Your task to perform on an android device: Go to Yahoo.com Image 0: 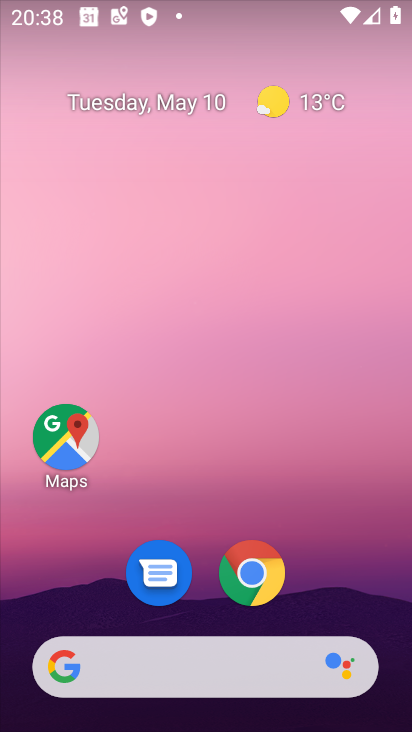
Step 0: click (250, 584)
Your task to perform on an android device: Go to Yahoo.com Image 1: 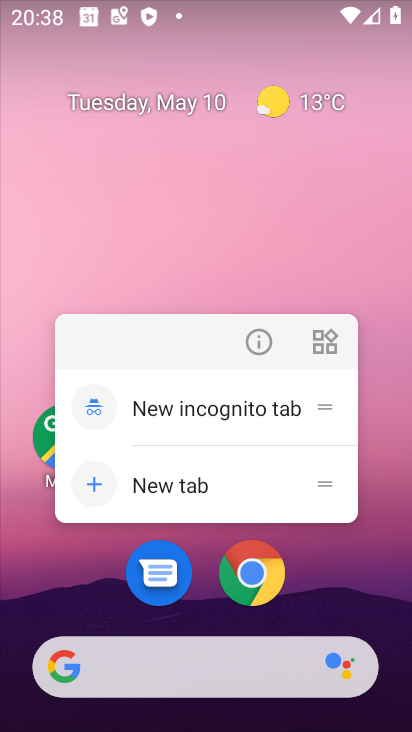
Step 1: click (258, 575)
Your task to perform on an android device: Go to Yahoo.com Image 2: 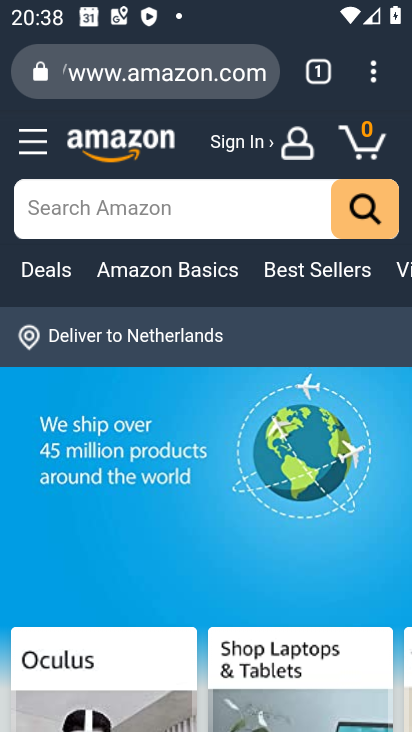
Step 2: click (104, 76)
Your task to perform on an android device: Go to Yahoo.com Image 3: 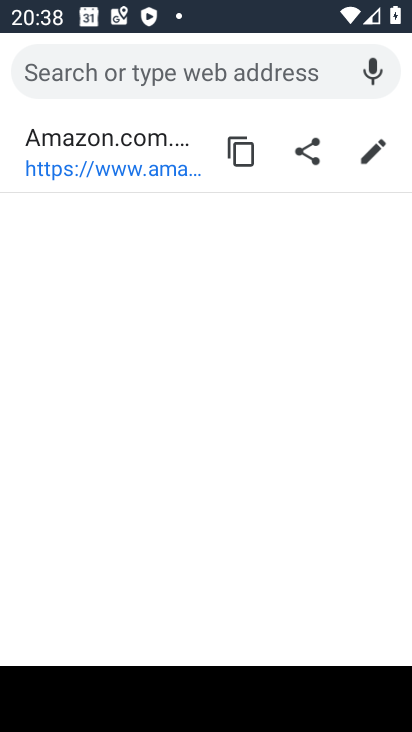
Step 3: type "yahoo.com"
Your task to perform on an android device: Go to Yahoo.com Image 4: 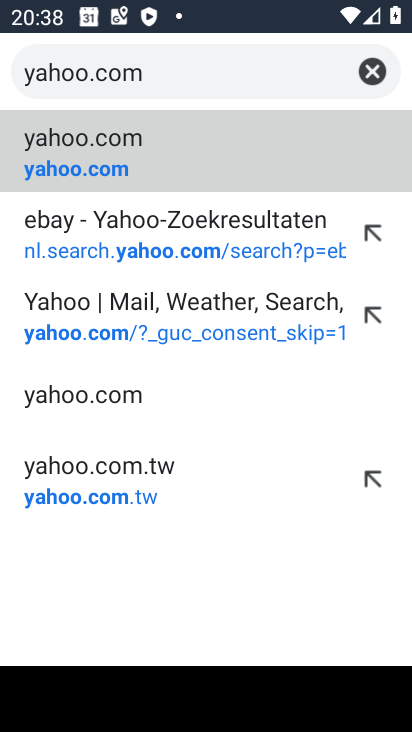
Step 4: click (85, 157)
Your task to perform on an android device: Go to Yahoo.com Image 5: 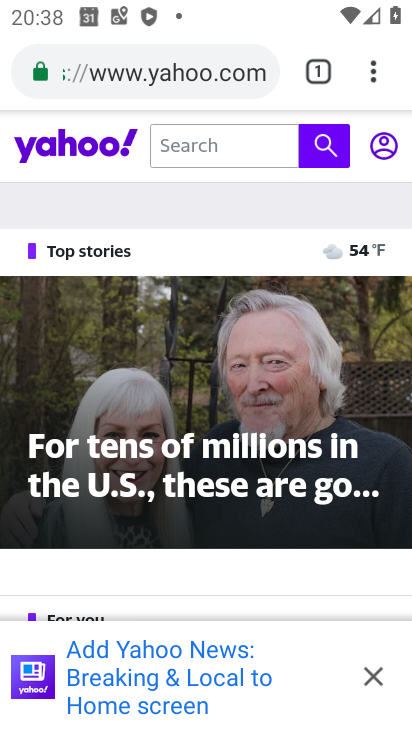
Step 5: task complete